Your task to perform on an android device: clear history in the chrome app Image 0: 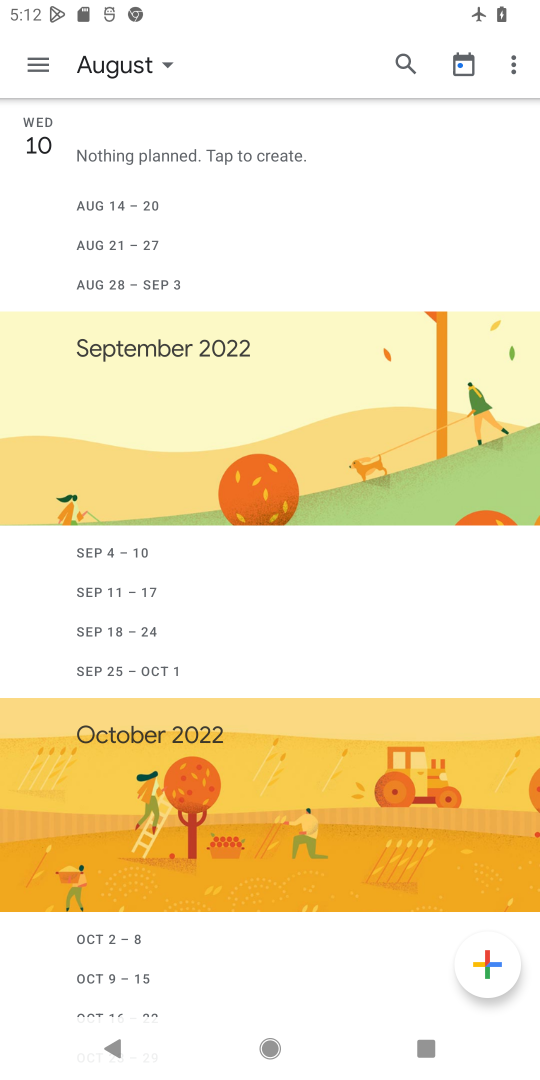
Step 0: press home button
Your task to perform on an android device: clear history in the chrome app Image 1: 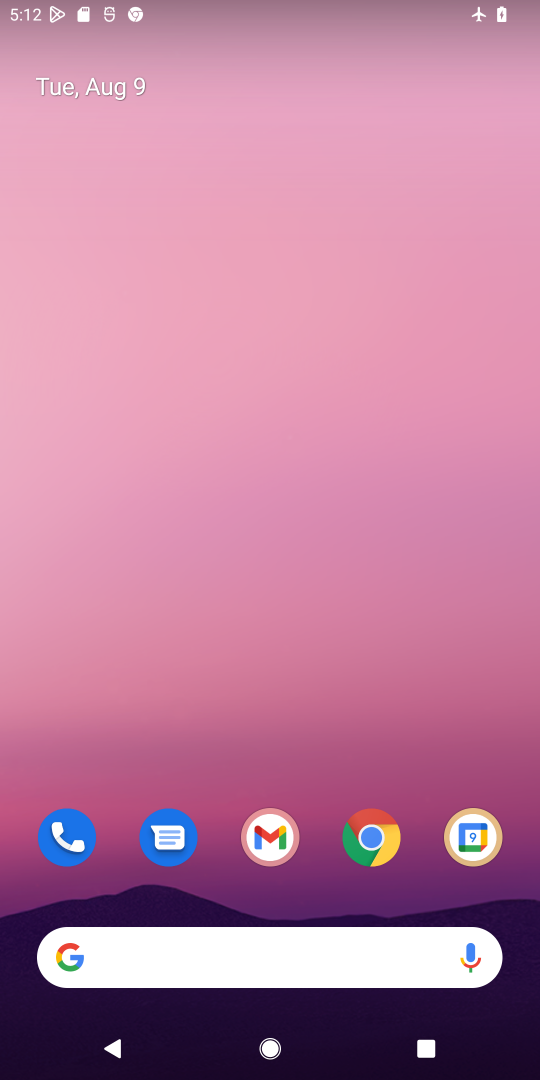
Step 1: drag from (39, 805) to (82, 68)
Your task to perform on an android device: clear history in the chrome app Image 2: 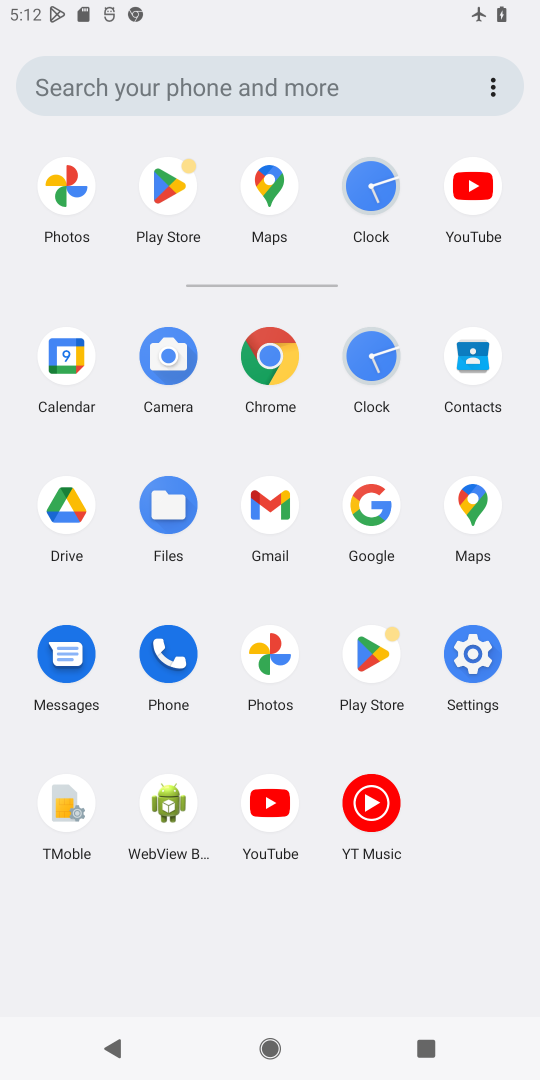
Step 2: click (258, 345)
Your task to perform on an android device: clear history in the chrome app Image 3: 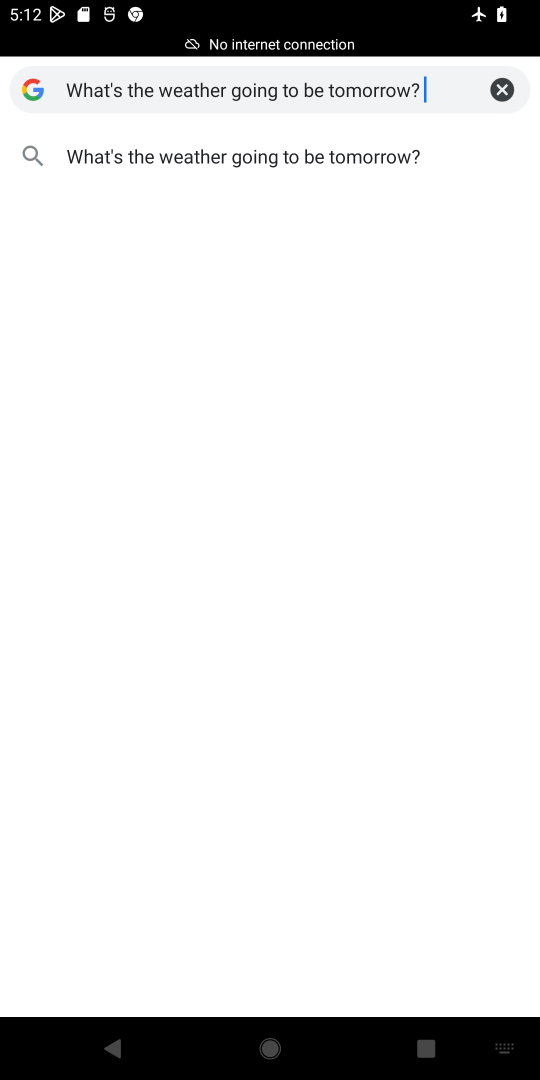
Step 3: click (499, 88)
Your task to perform on an android device: clear history in the chrome app Image 4: 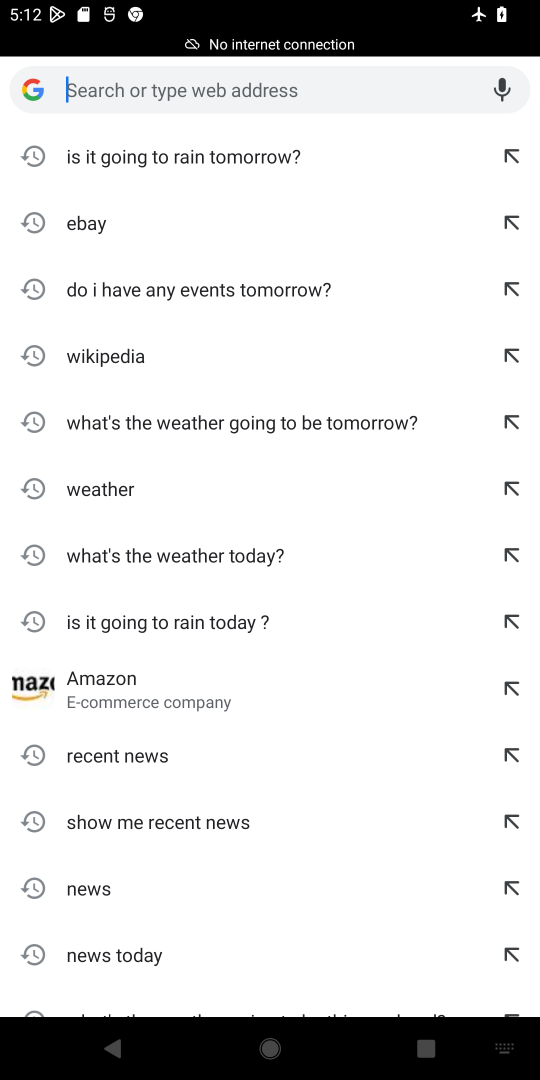
Step 4: click (63, 78)
Your task to perform on an android device: clear history in the chrome app Image 5: 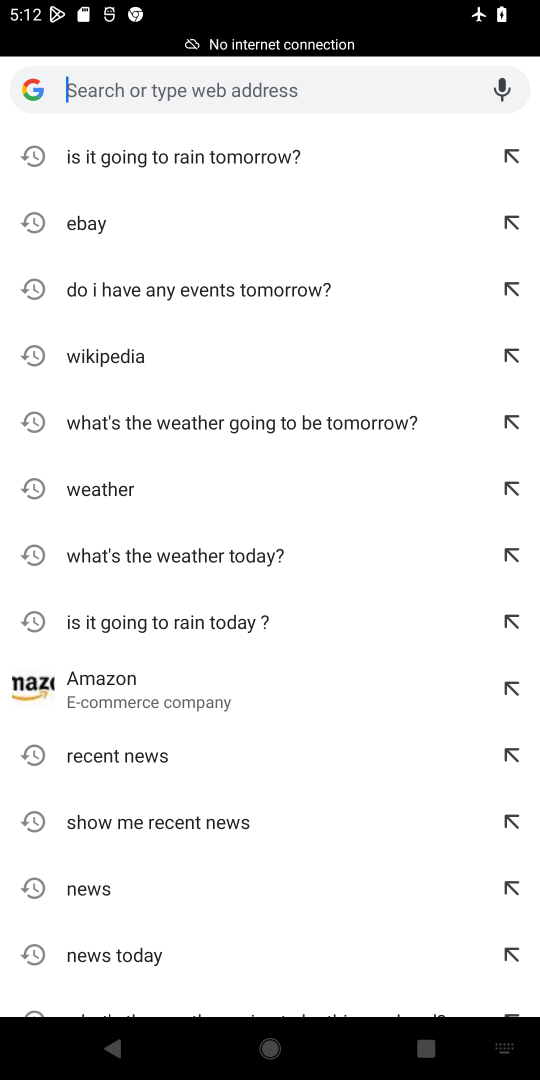
Step 5: press back button
Your task to perform on an android device: clear history in the chrome app Image 6: 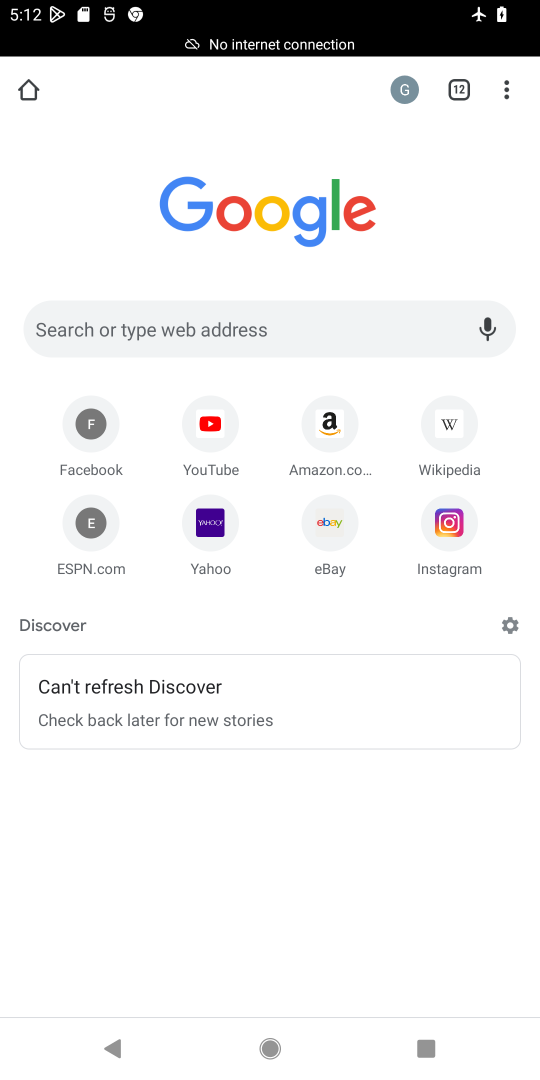
Step 6: click (509, 83)
Your task to perform on an android device: clear history in the chrome app Image 7: 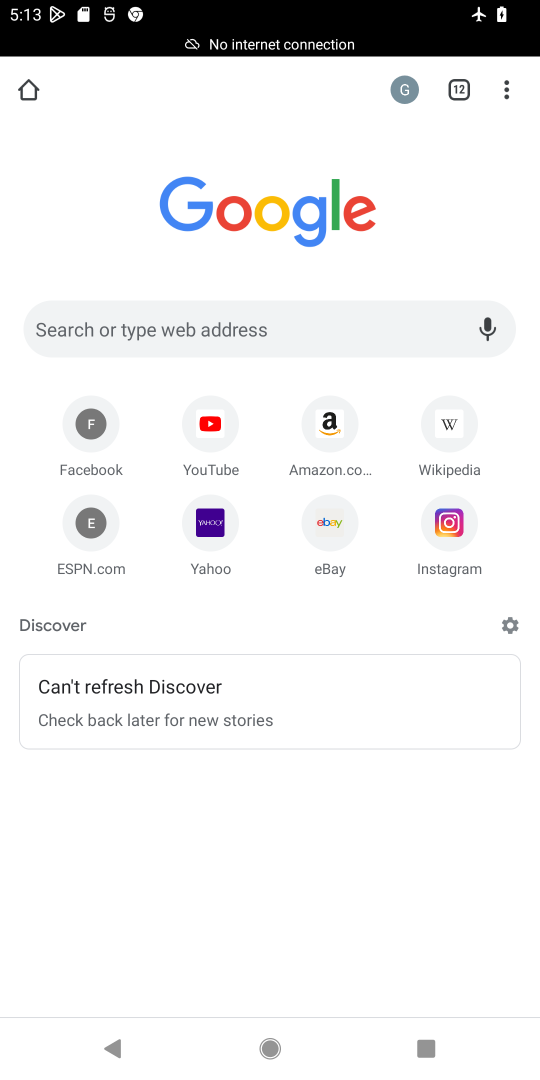
Step 7: click (502, 86)
Your task to perform on an android device: clear history in the chrome app Image 8: 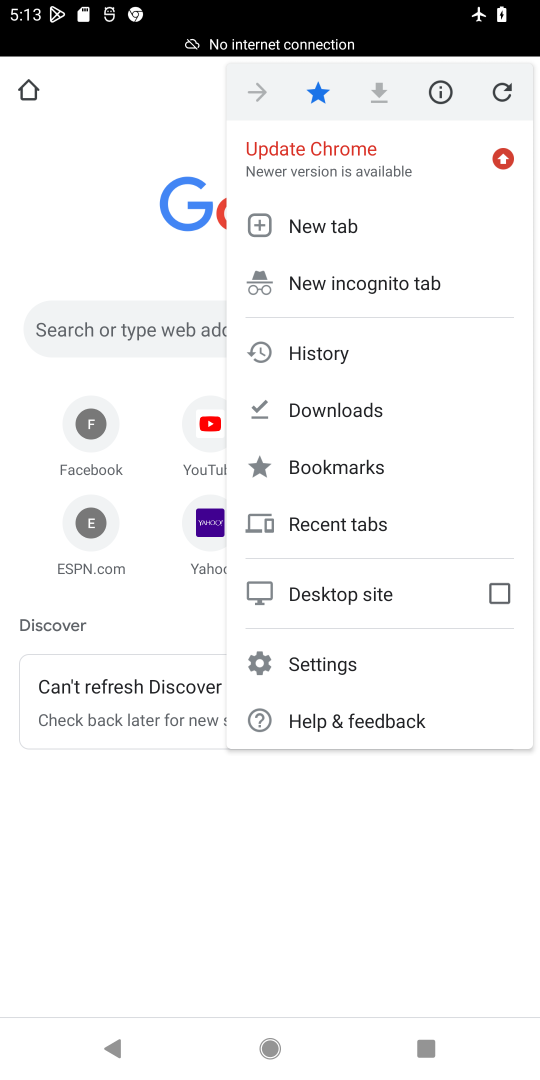
Step 8: click (333, 359)
Your task to perform on an android device: clear history in the chrome app Image 9: 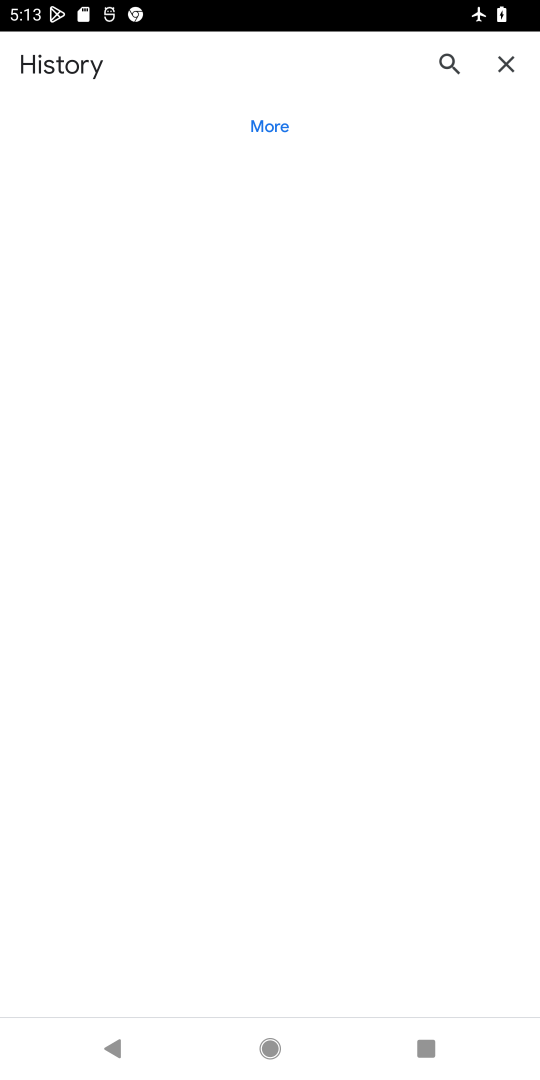
Step 9: task complete